Your task to perform on an android device: Go to ESPN.com Image 0: 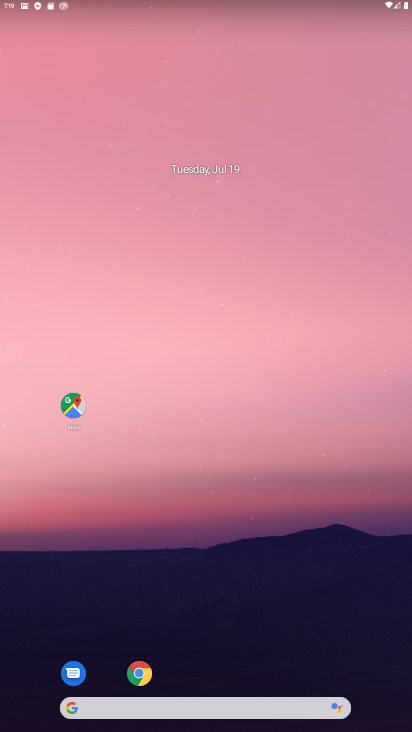
Step 0: drag from (190, 650) to (30, 0)
Your task to perform on an android device: Go to ESPN.com Image 1: 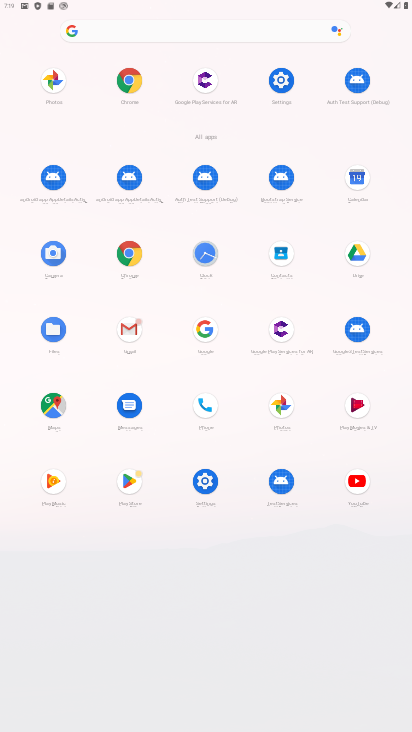
Step 1: click (130, 260)
Your task to perform on an android device: Go to ESPN.com Image 2: 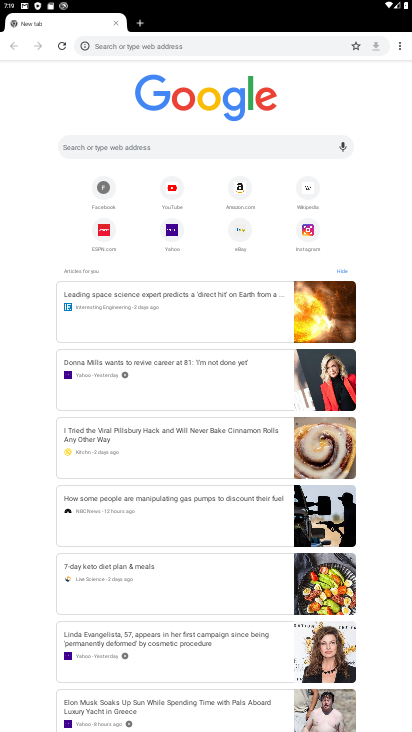
Step 2: click (102, 239)
Your task to perform on an android device: Go to ESPN.com Image 3: 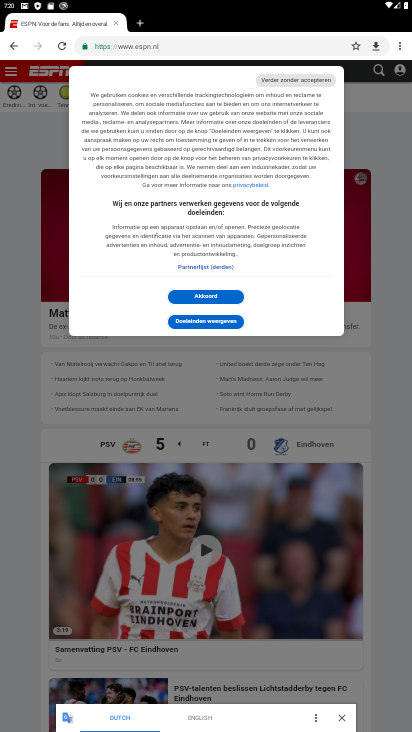
Step 3: task complete